Your task to perform on an android device: open chrome and create a bookmark for the current page Image 0: 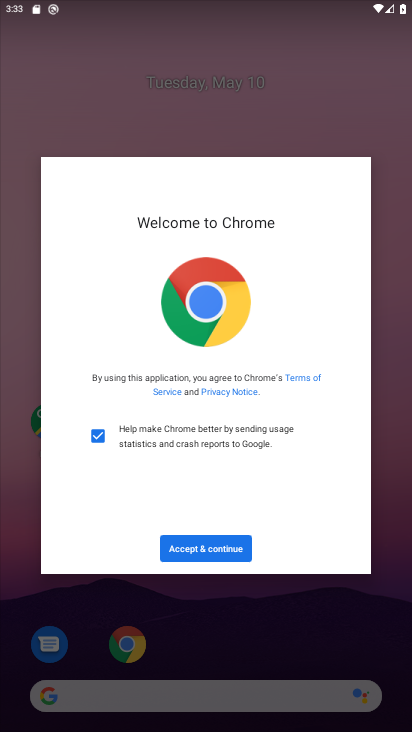
Step 0: press home button
Your task to perform on an android device: open chrome and create a bookmark for the current page Image 1: 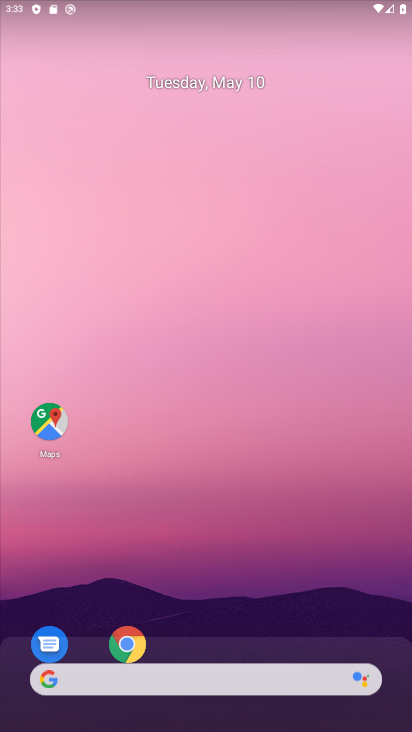
Step 1: click (123, 643)
Your task to perform on an android device: open chrome and create a bookmark for the current page Image 2: 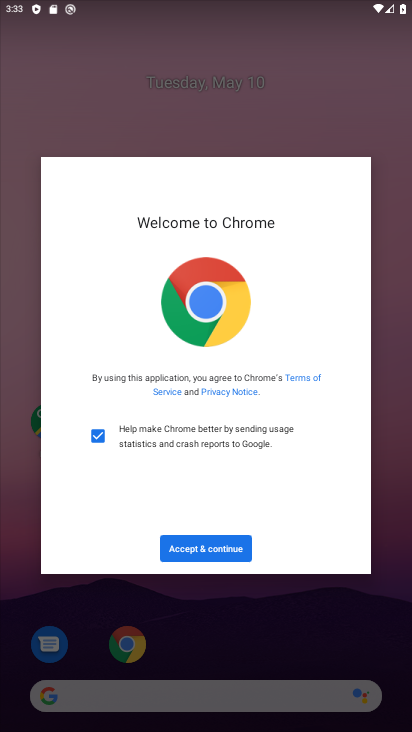
Step 2: click (205, 548)
Your task to perform on an android device: open chrome and create a bookmark for the current page Image 3: 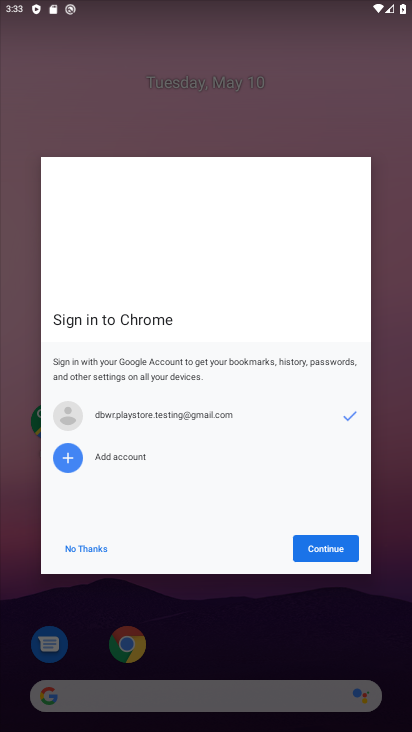
Step 3: click (325, 545)
Your task to perform on an android device: open chrome and create a bookmark for the current page Image 4: 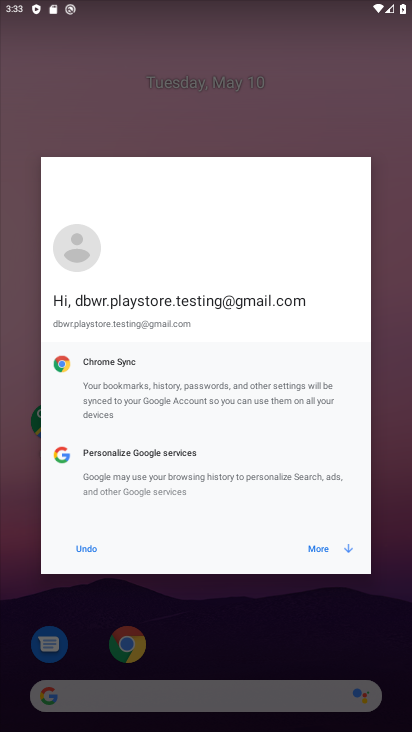
Step 4: click (317, 551)
Your task to perform on an android device: open chrome and create a bookmark for the current page Image 5: 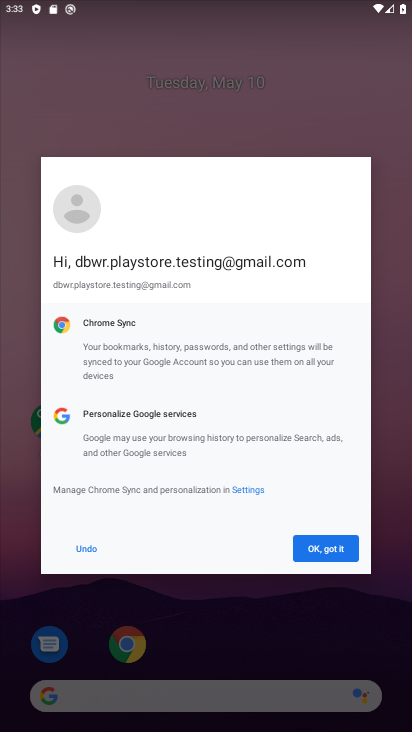
Step 5: click (324, 545)
Your task to perform on an android device: open chrome and create a bookmark for the current page Image 6: 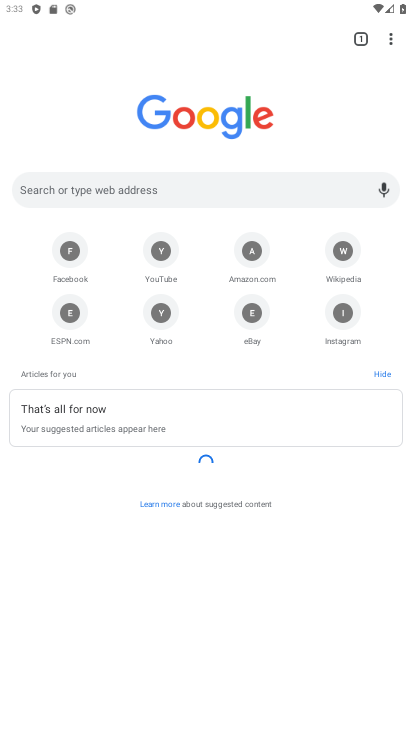
Step 6: click (100, 187)
Your task to perform on an android device: open chrome and create a bookmark for the current page Image 7: 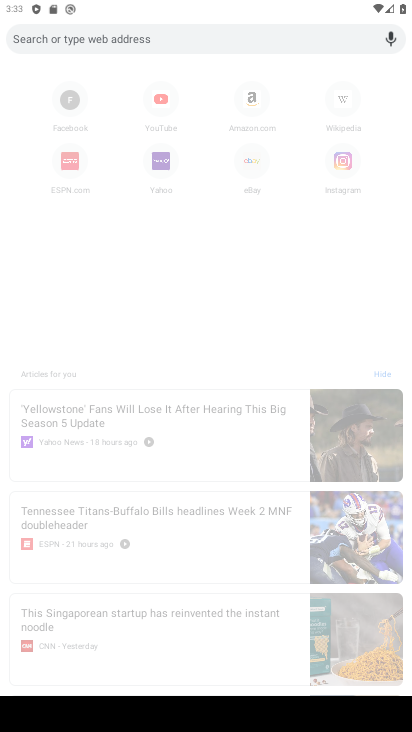
Step 7: type "mobile"
Your task to perform on an android device: open chrome and create a bookmark for the current page Image 8: 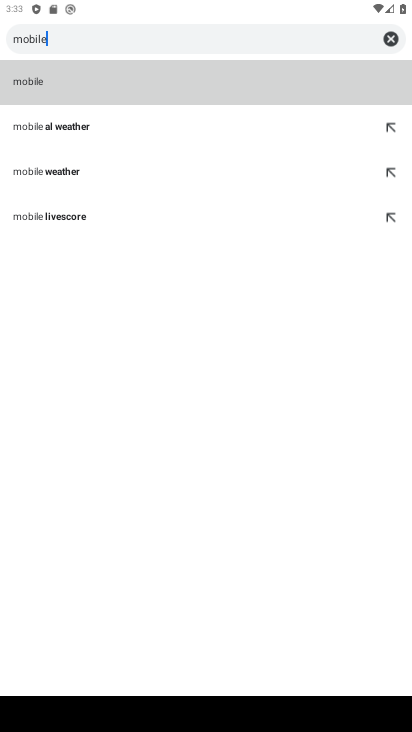
Step 8: click (55, 79)
Your task to perform on an android device: open chrome and create a bookmark for the current page Image 9: 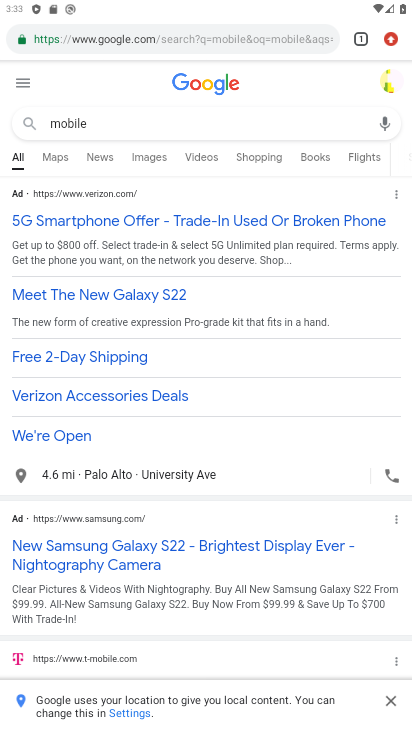
Step 9: click (398, 47)
Your task to perform on an android device: open chrome and create a bookmark for the current page Image 10: 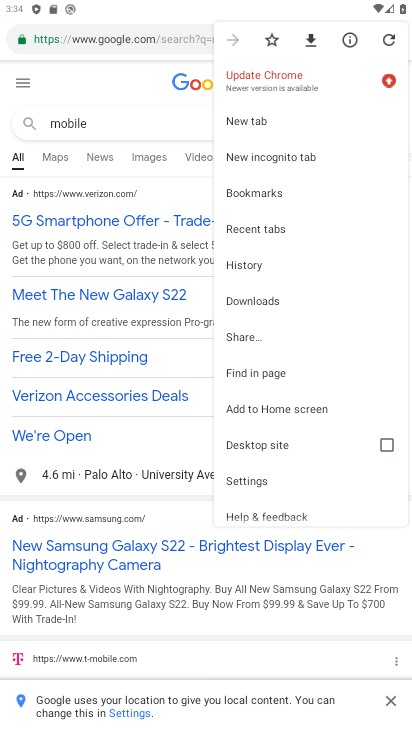
Step 10: click (268, 41)
Your task to perform on an android device: open chrome and create a bookmark for the current page Image 11: 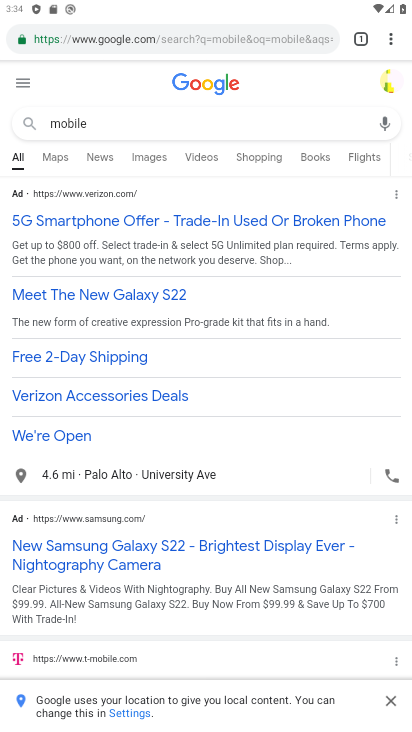
Step 11: task complete